Your task to perform on an android device: Open maps Image 0: 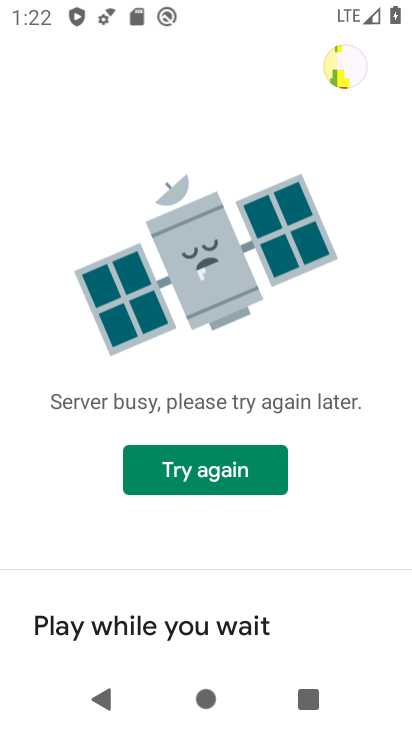
Step 0: press home button
Your task to perform on an android device: Open maps Image 1: 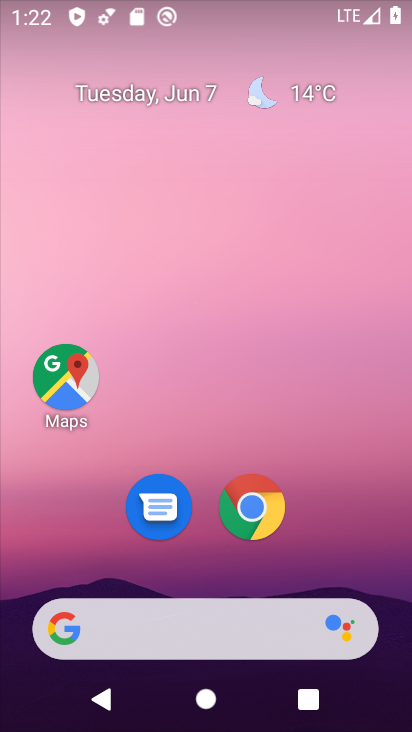
Step 1: click (69, 378)
Your task to perform on an android device: Open maps Image 2: 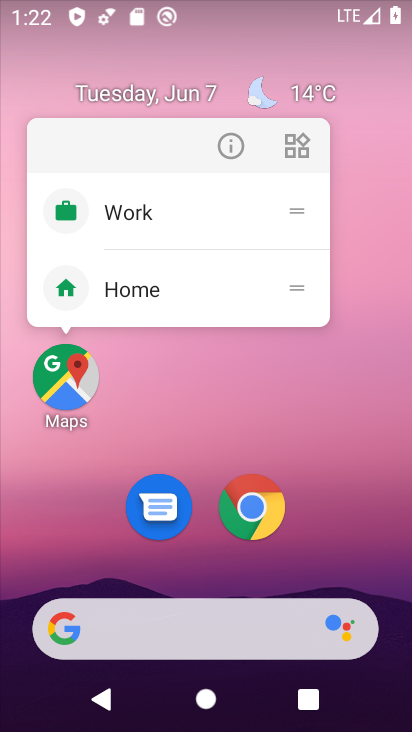
Step 2: click (70, 381)
Your task to perform on an android device: Open maps Image 3: 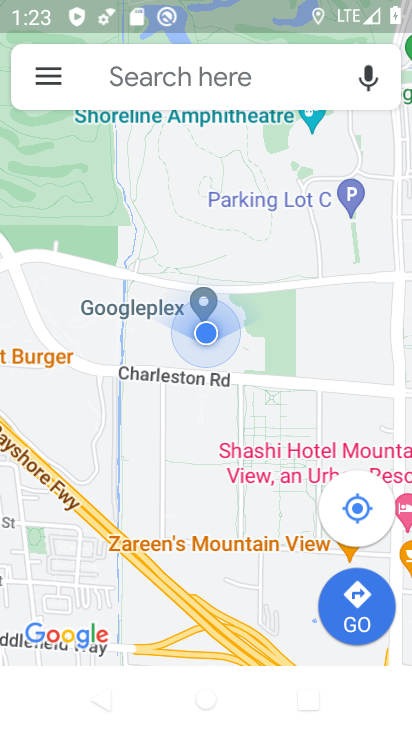
Step 3: task complete